Your task to perform on an android device: visit the assistant section in the google photos Image 0: 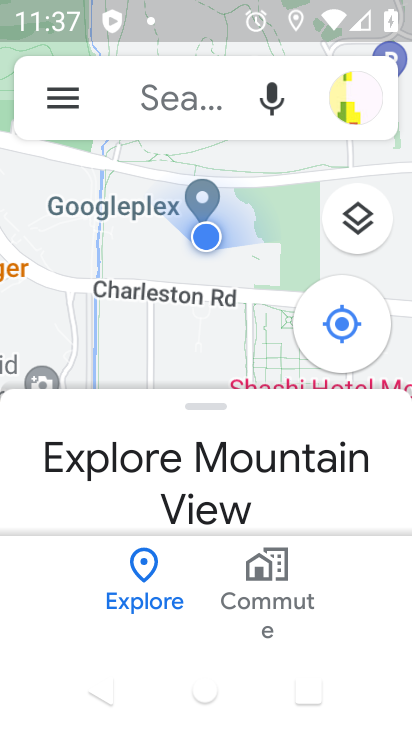
Step 0: press home button
Your task to perform on an android device: visit the assistant section in the google photos Image 1: 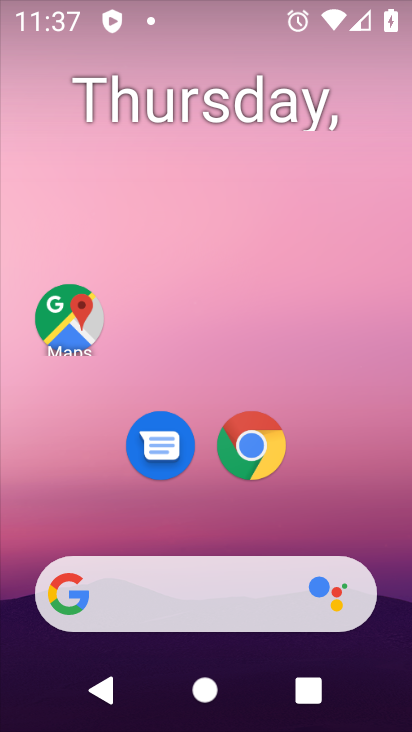
Step 1: drag from (358, 427) to (314, 76)
Your task to perform on an android device: visit the assistant section in the google photos Image 2: 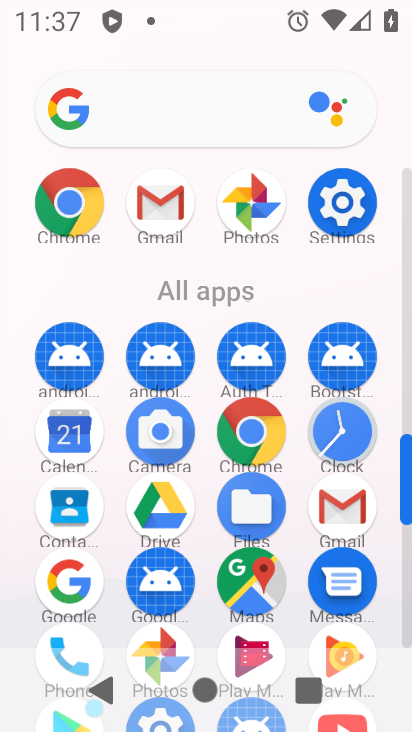
Step 2: click (272, 231)
Your task to perform on an android device: visit the assistant section in the google photos Image 3: 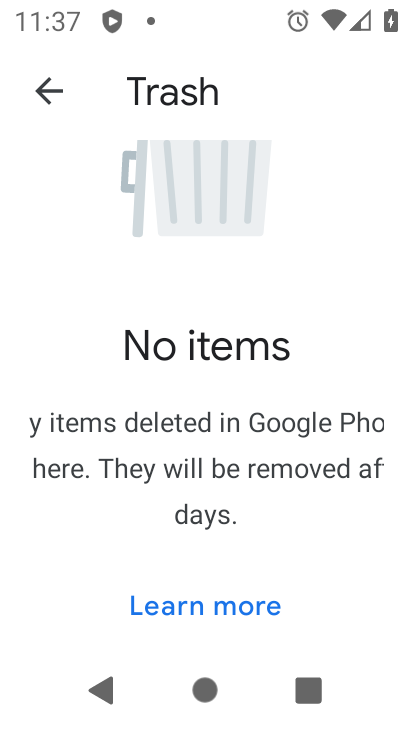
Step 3: click (47, 105)
Your task to perform on an android device: visit the assistant section in the google photos Image 4: 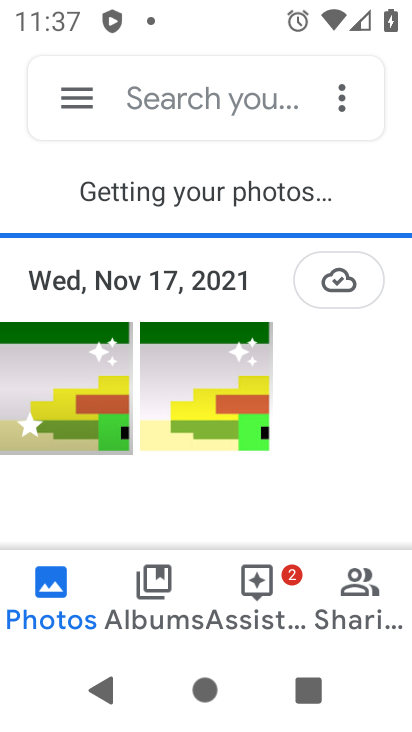
Step 4: click (242, 579)
Your task to perform on an android device: visit the assistant section in the google photos Image 5: 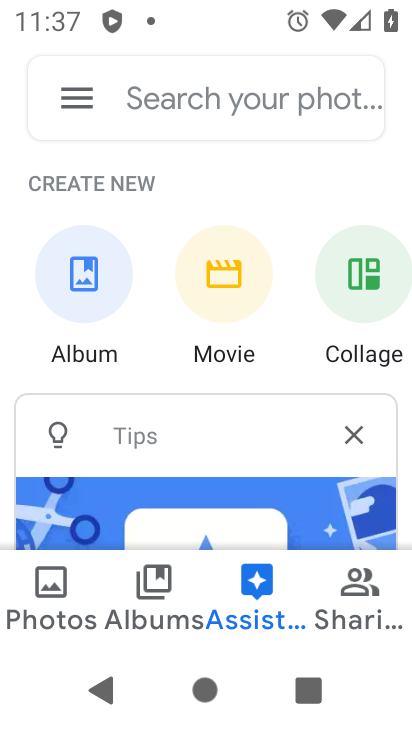
Step 5: task complete